Your task to perform on an android device: Go to settings Image 0: 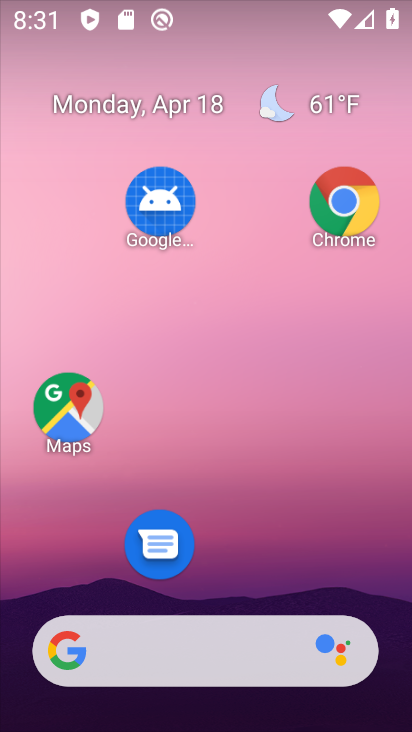
Step 0: drag from (235, 576) to (220, 1)
Your task to perform on an android device: Go to settings Image 1: 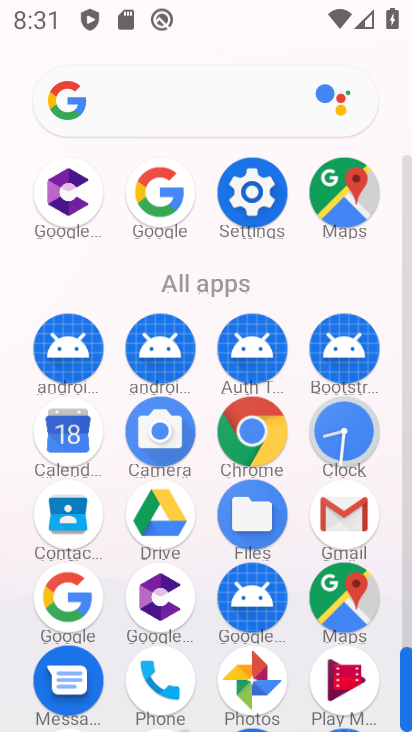
Step 1: click (240, 195)
Your task to perform on an android device: Go to settings Image 2: 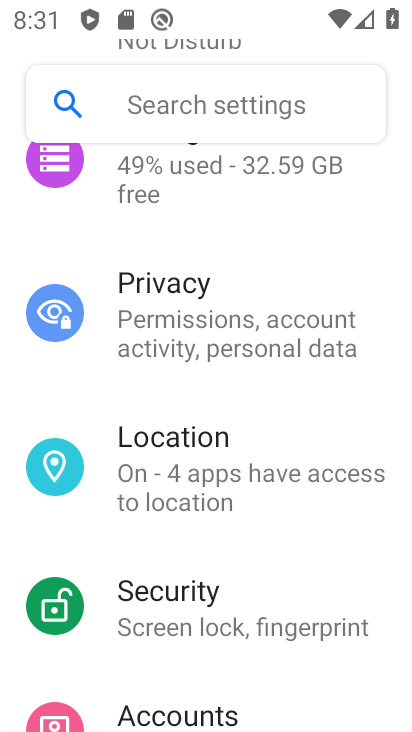
Step 2: task complete